Your task to perform on an android device: turn off airplane mode Image 0: 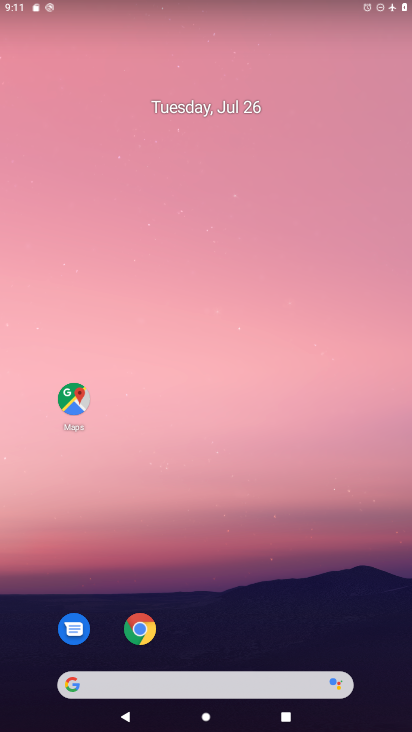
Step 0: drag from (206, 667) to (171, 45)
Your task to perform on an android device: turn off airplane mode Image 1: 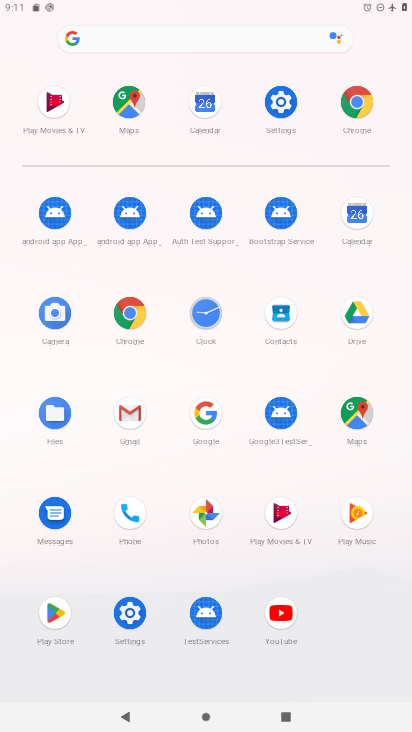
Step 1: click (135, 615)
Your task to perform on an android device: turn off airplane mode Image 2: 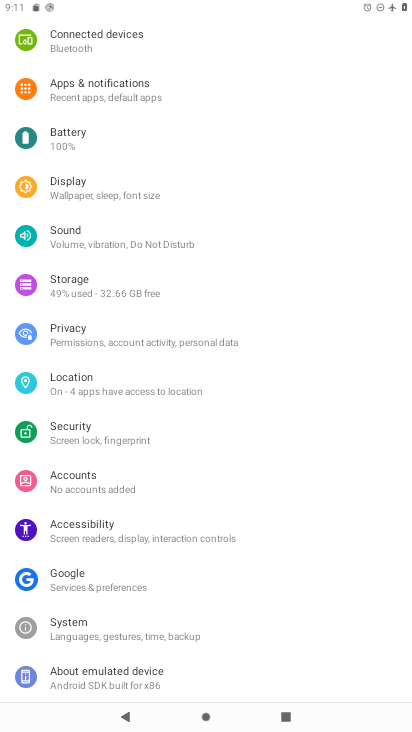
Step 2: drag from (141, 185) to (116, 631)
Your task to perform on an android device: turn off airplane mode Image 3: 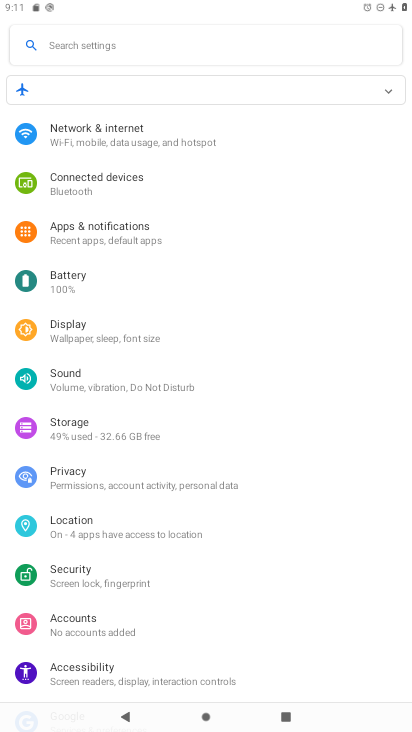
Step 3: click (122, 141)
Your task to perform on an android device: turn off airplane mode Image 4: 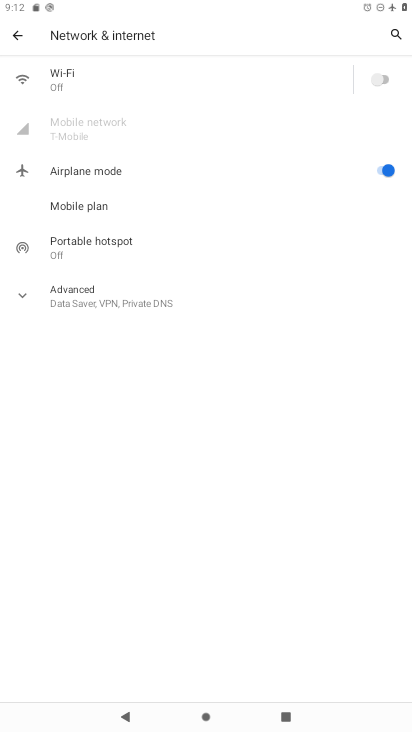
Step 4: click (375, 167)
Your task to perform on an android device: turn off airplane mode Image 5: 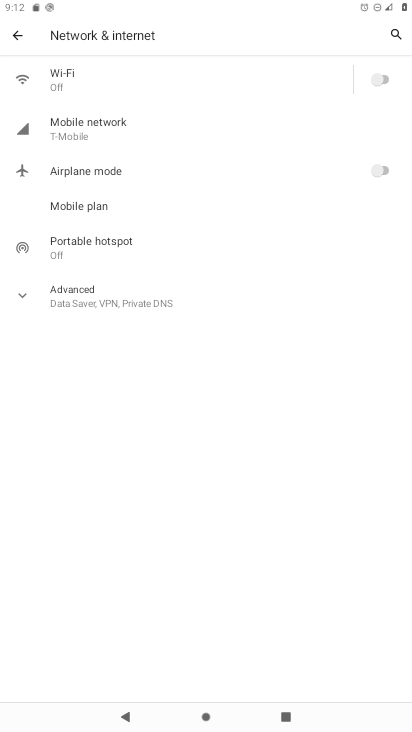
Step 5: task complete